Your task to perform on an android device: Go to Android settings Image 0: 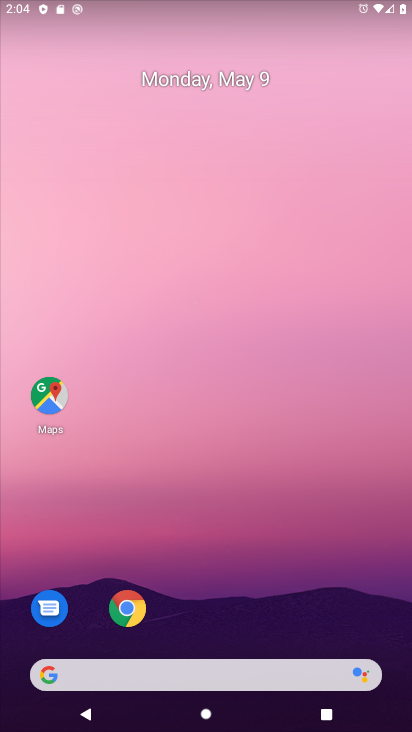
Step 0: click (282, 27)
Your task to perform on an android device: Go to Android settings Image 1: 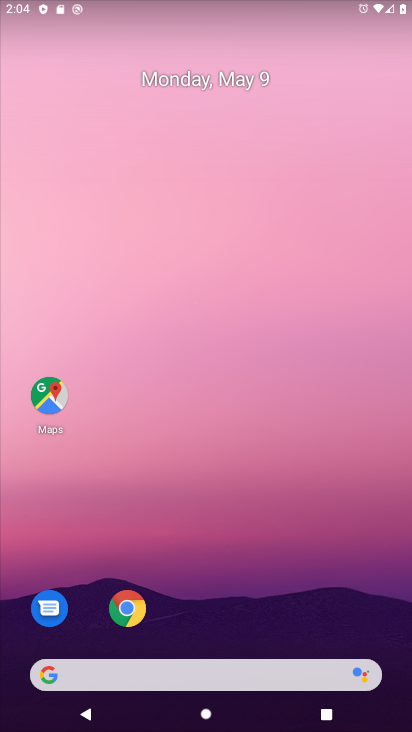
Step 1: drag from (205, 631) to (221, 239)
Your task to perform on an android device: Go to Android settings Image 2: 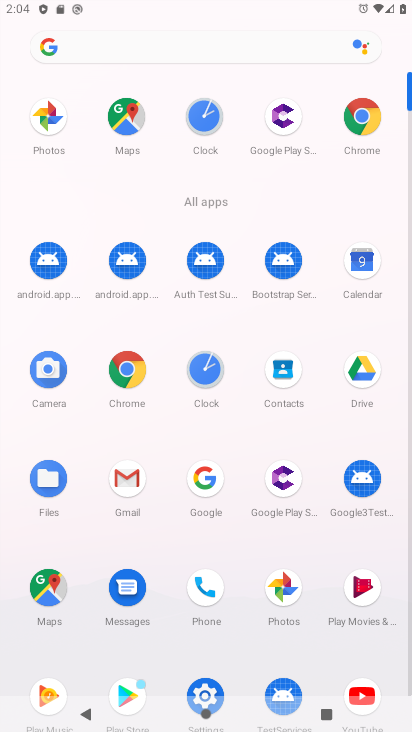
Step 2: click (204, 695)
Your task to perform on an android device: Go to Android settings Image 3: 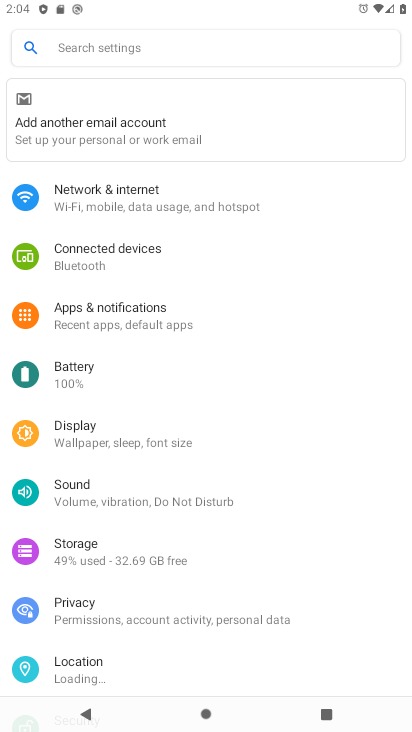
Step 3: drag from (114, 650) to (190, 122)
Your task to perform on an android device: Go to Android settings Image 4: 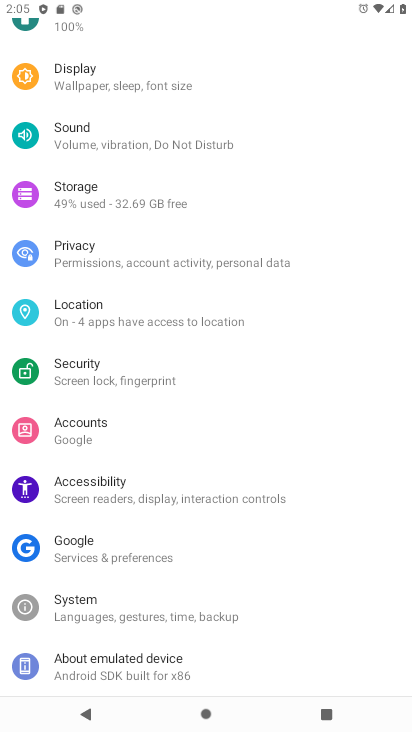
Step 4: drag from (142, 630) to (226, 276)
Your task to perform on an android device: Go to Android settings Image 5: 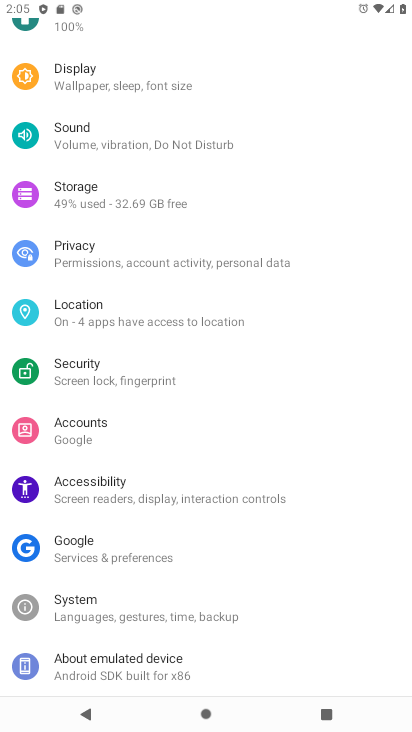
Step 5: click (93, 657)
Your task to perform on an android device: Go to Android settings Image 6: 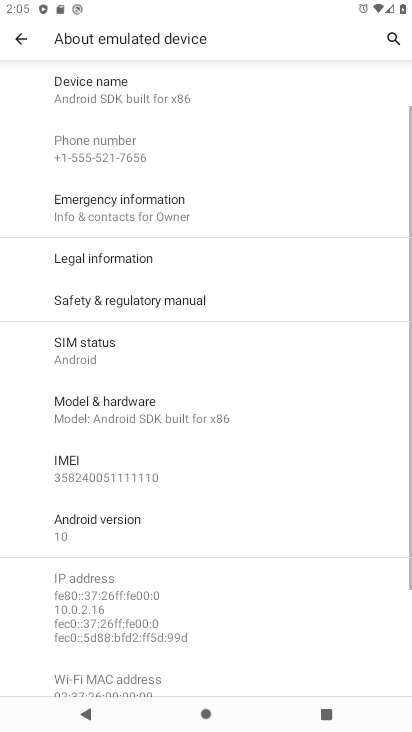
Step 6: task complete